Your task to perform on an android device: Open network settings Image 0: 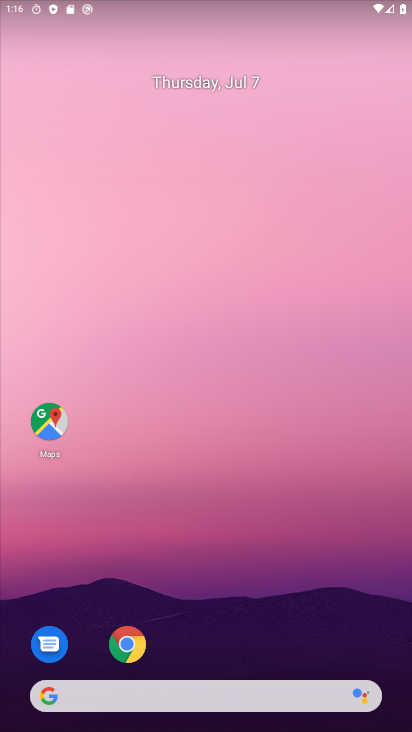
Step 0: drag from (237, 608) to (217, 59)
Your task to perform on an android device: Open network settings Image 1: 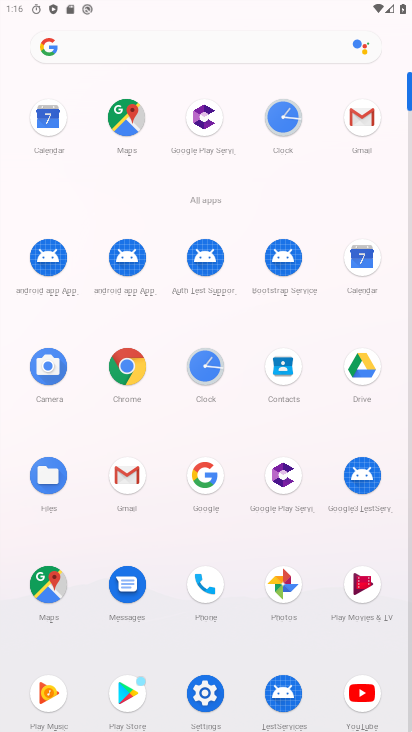
Step 1: click (208, 687)
Your task to perform on an android device: Open network settings Image 2: 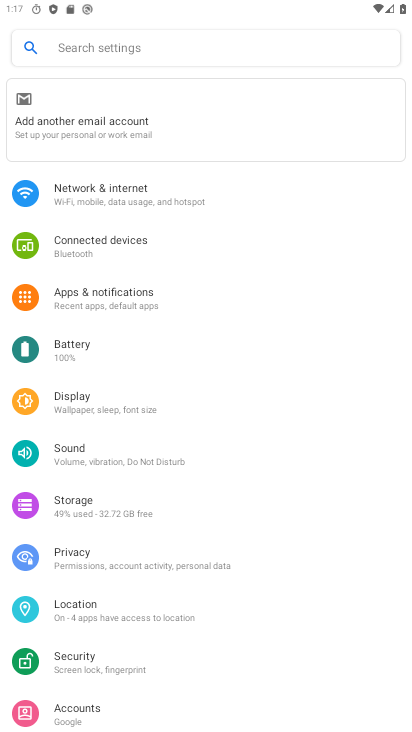
Step 2: click (94, 190)
Your task to perform on an android device: Open network settings Image 3: 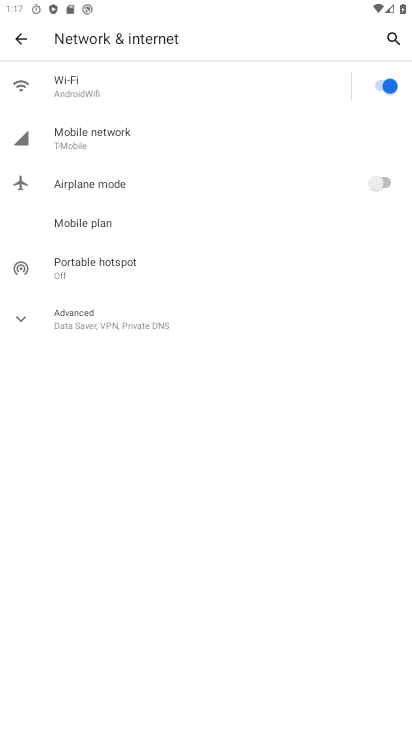
Step 3: click (92, 126)
Your task to perform on an android device: Open network settings Image 4: 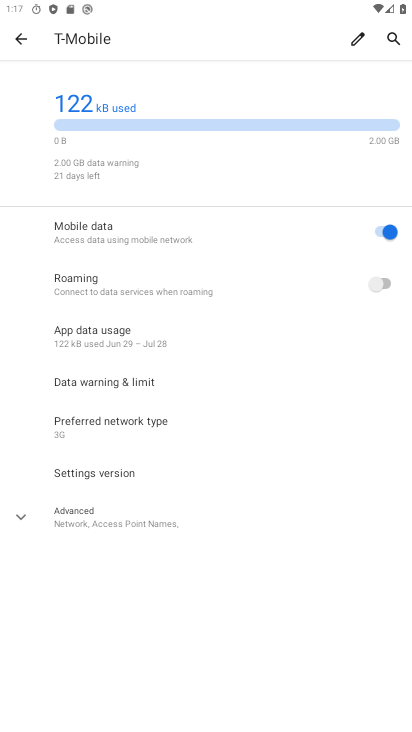
Step 4: task complete